Your task to perform on an android device: turn off sleep mode Image 0: 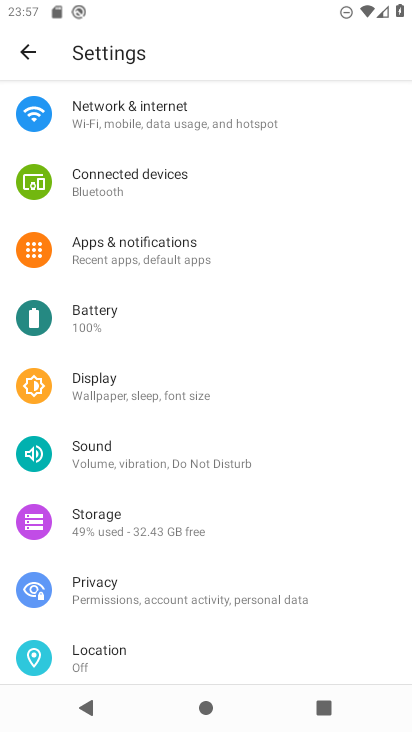
Step 0: click (193, 373)
Your task to perform on an android device: turn off sleep mode Image 1: 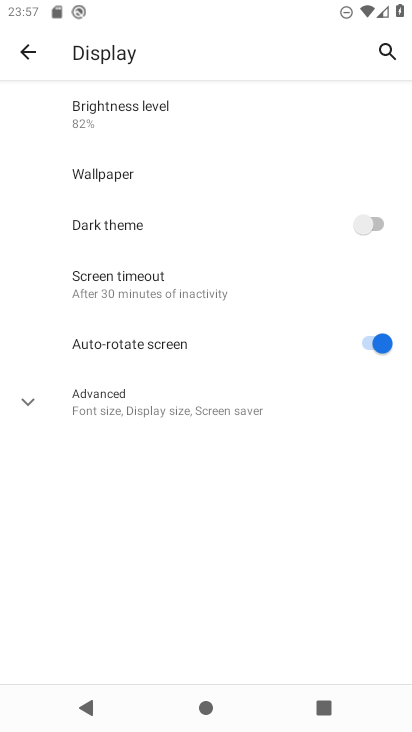
Step 1: task complete